Your task to perform on an android device: Go to Yahoo.com Image 0: 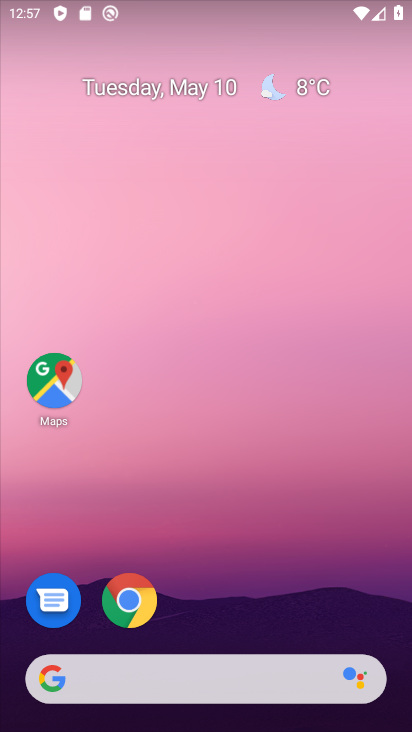
Step 0: press home button
Your task to perform on an android device: Go to Yahoo.com Image 1: 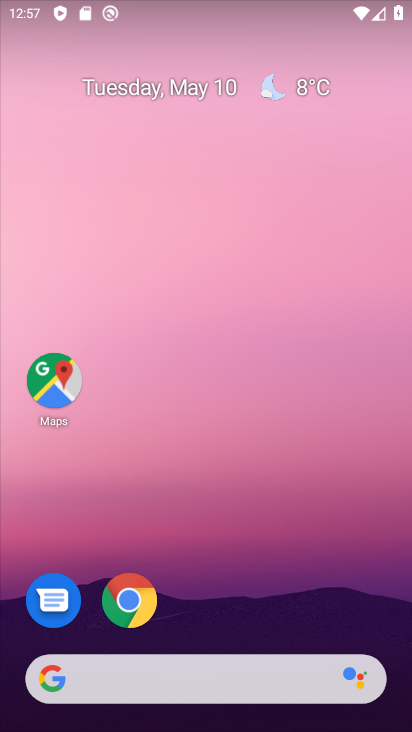
Step 1: drag from (158, 681) to (341, 24)
Your task to perform on an android device: Go to Yahoo.com Image 2: 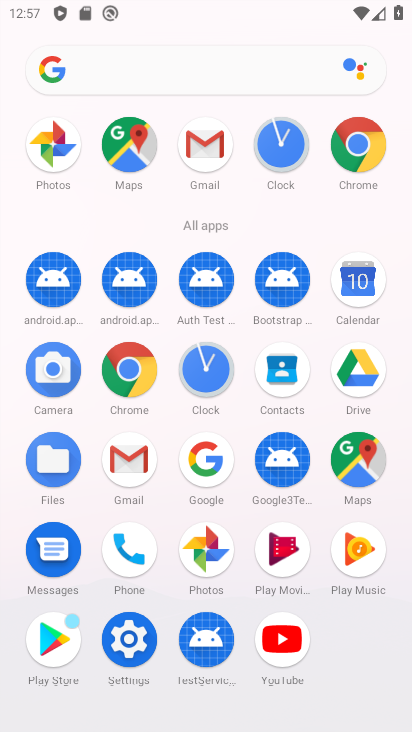
Step 2: click (370, 150)
Your task to perform on an android device: Go to Yahoo.com Image 3: 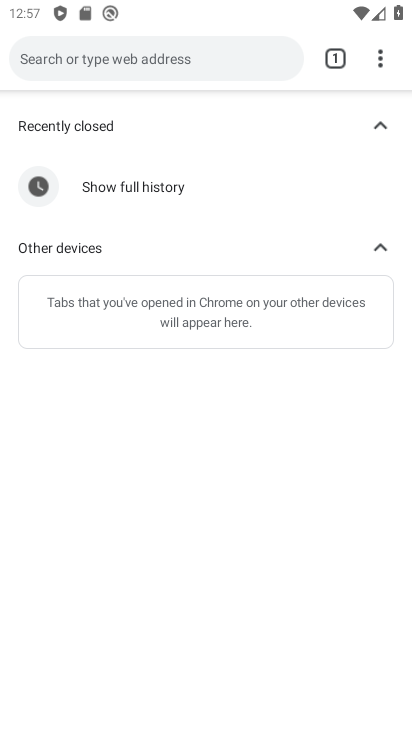
Step 3: drag from (381, 65) to (295, 111)
Your task to perform on an android device: Go to Yahoo.com Image 4: 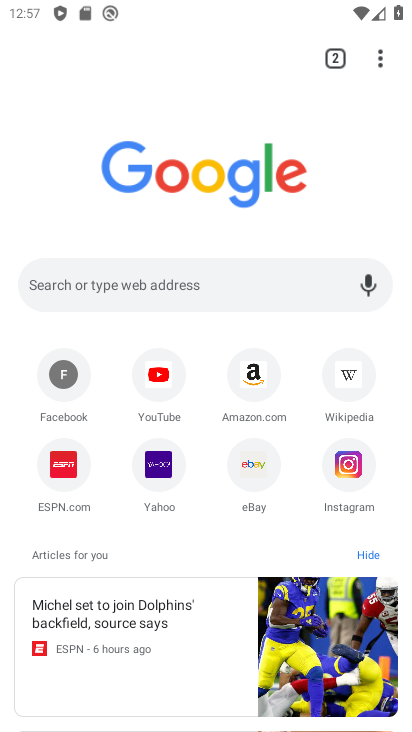
Step 4: click (161, 468)
Your task to perform on an android device: Go to Yahoo.com Image 5: 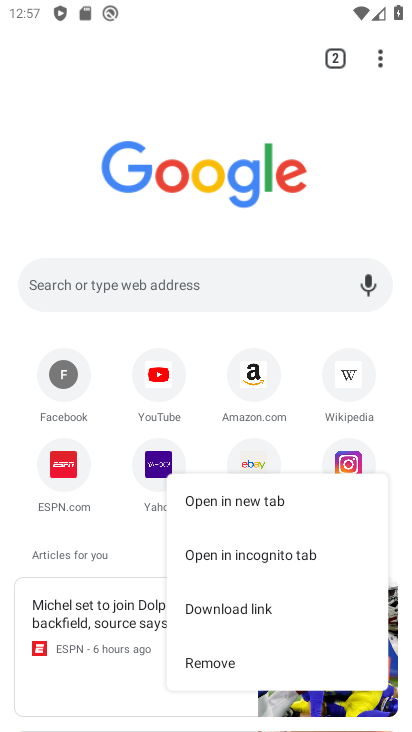
Step 5: click (157, 467)
Your task to perform on an android device: Go to Yahoo.com Image 6: 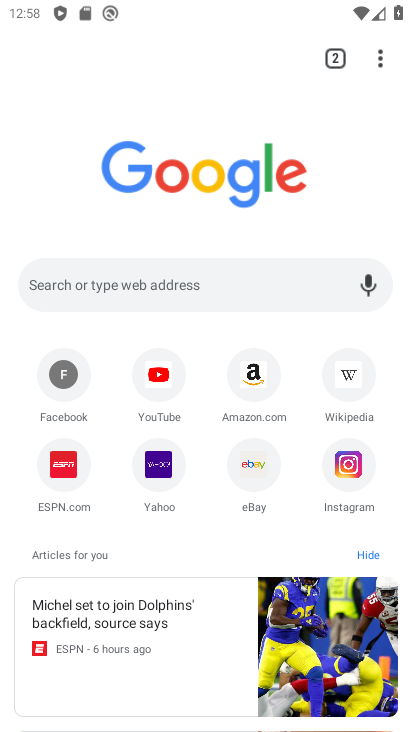
Step 6: click (160, 474)
Your task to perform on an android device: Go to Yahoo.com Image 7: 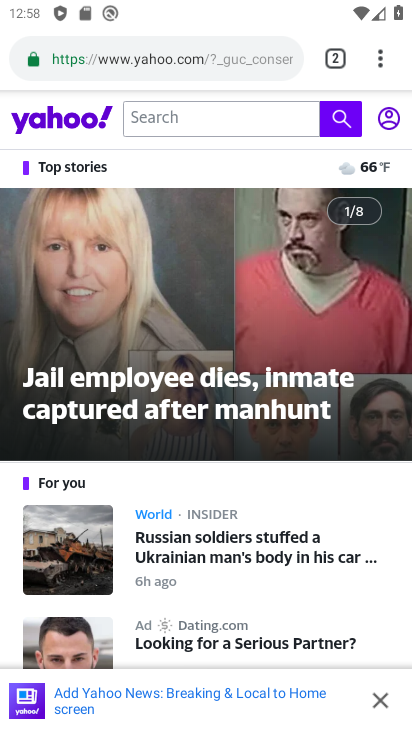
Step 7: task complete